Your task to perform on an android device: open app "WhatsApp Messenger" (install if not already installed) Image 0: 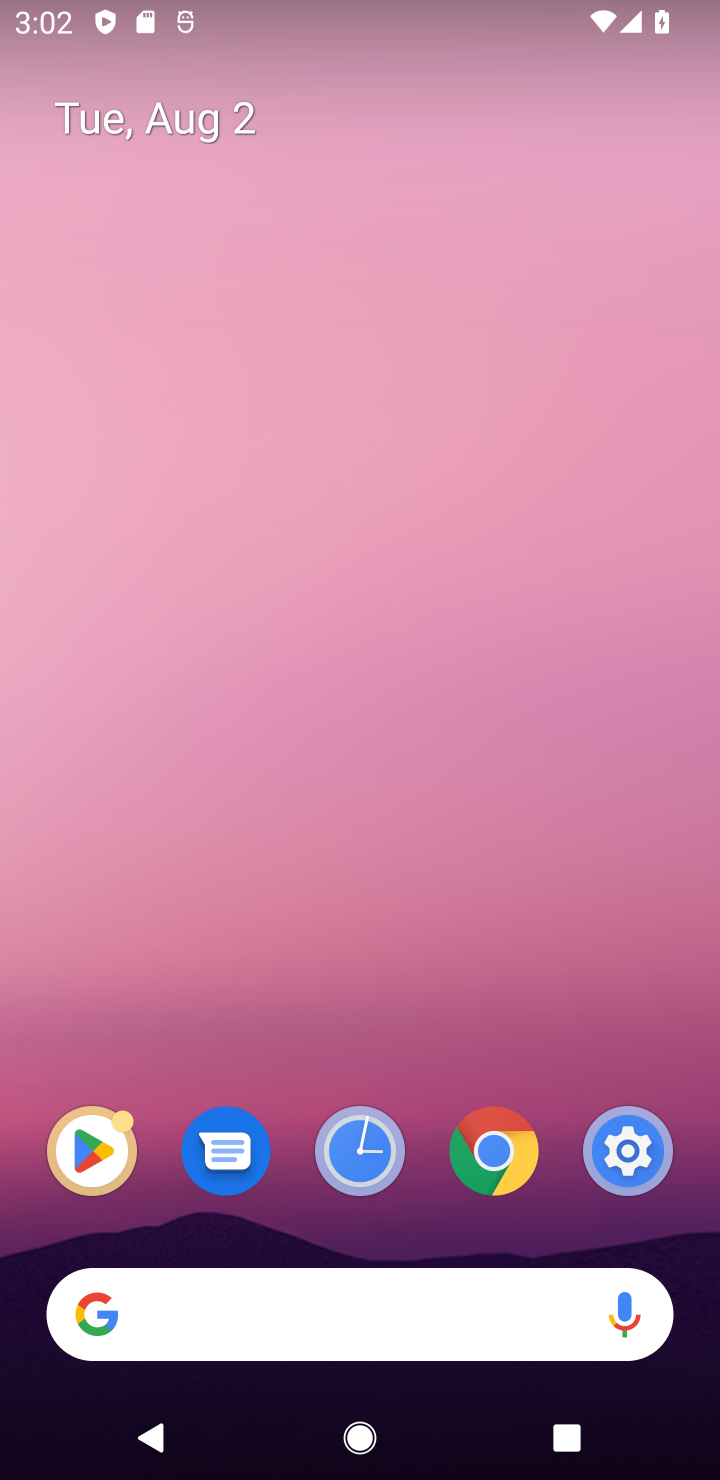
Step 0: click (66, 1134)
Your task to perform on an android device: open app "WhatsApp Messenger" (install if not already installed) Image 1: 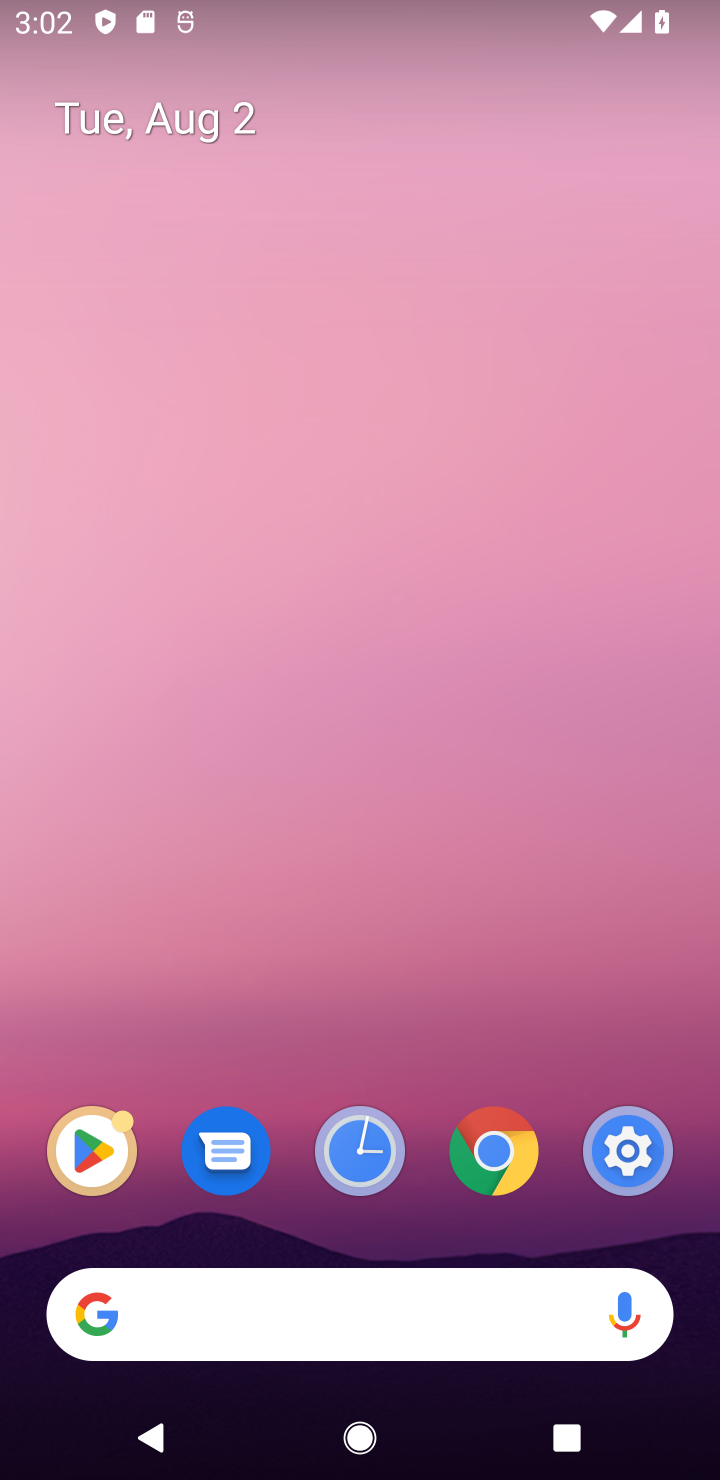
Step 1: click (66, 1134)
Your task to perform on an android device: open app "WhatsApp Messenger" (install if not already installed) Image 2: 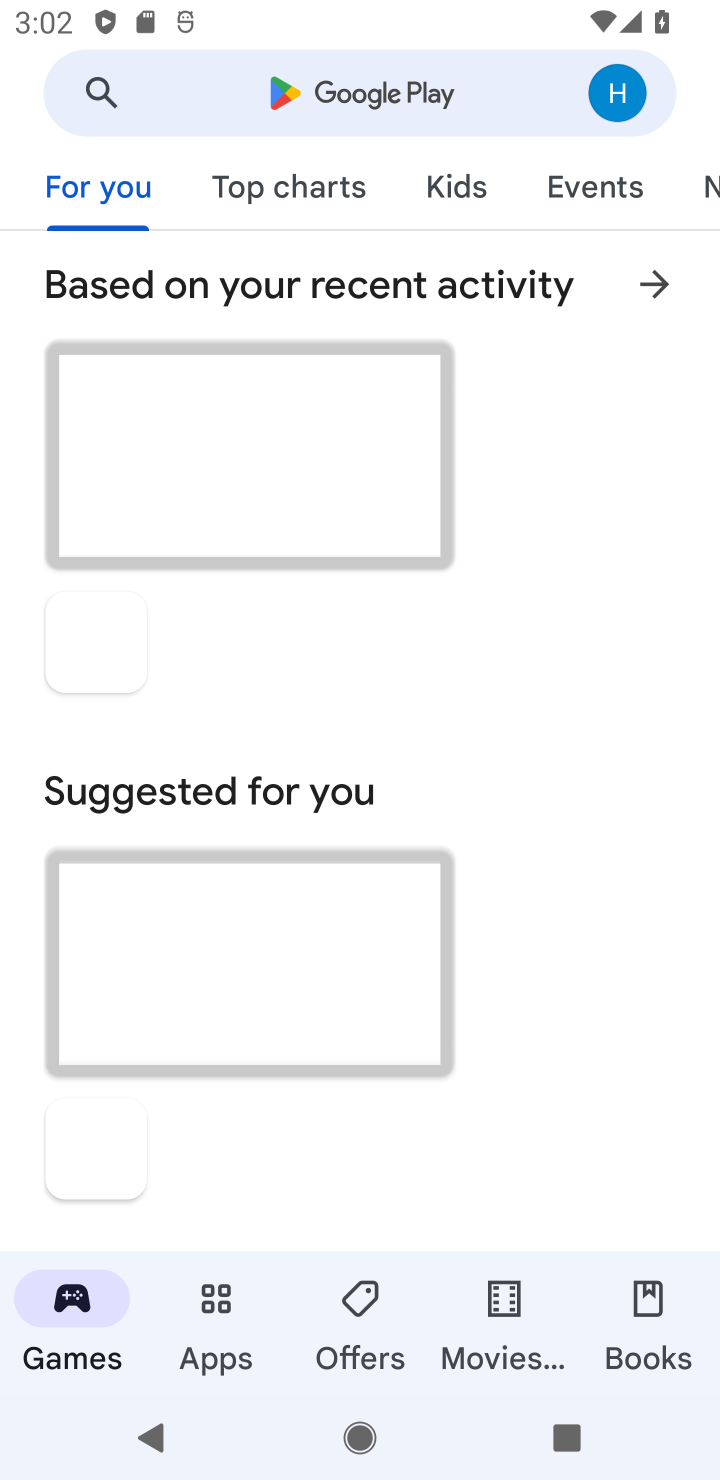
Step 2: click (572, 177)
Your task to perform on an android device: open app "WhatsApp Messenger" (install if not already installed) Image 3: 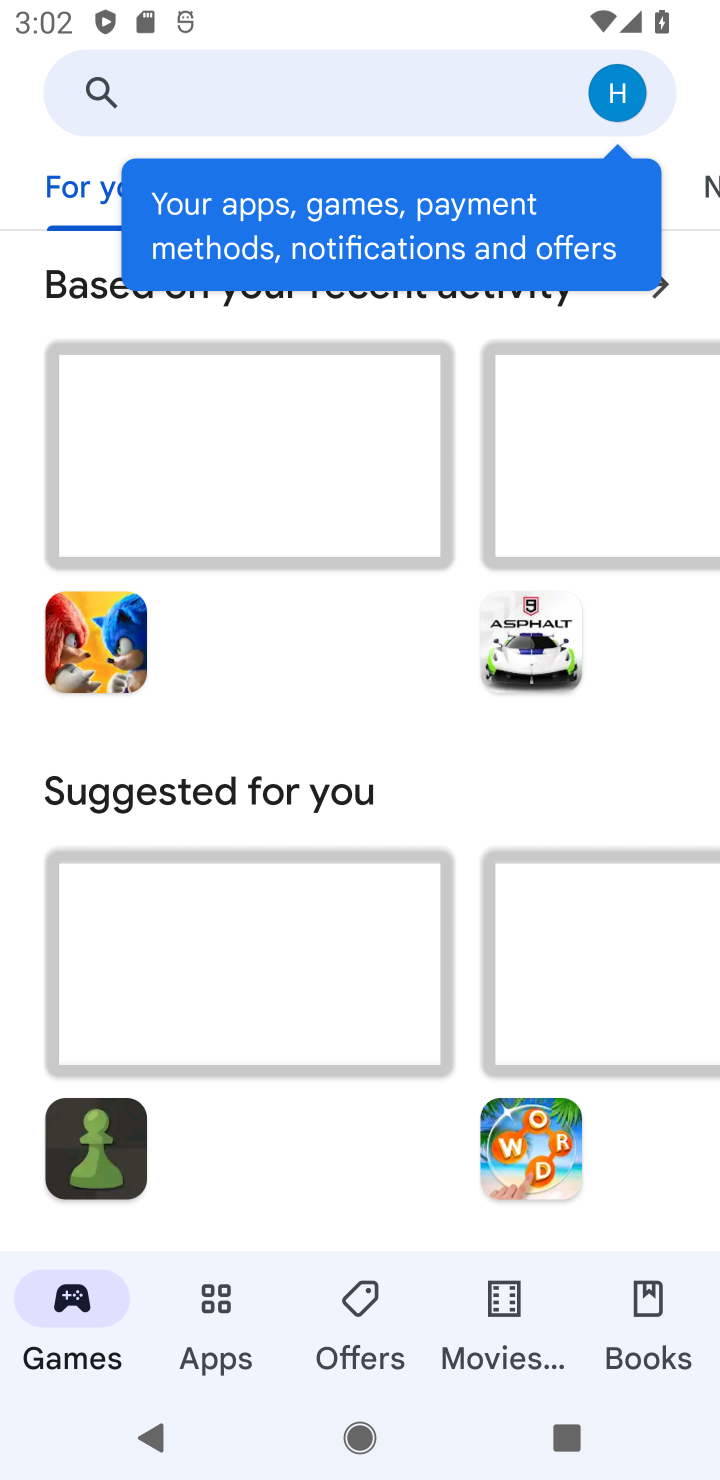
Step 3: click (404, 65)
Your task to perform on an android device: open app "WhatsApp Messenger" (install if not already installed) Image 4: 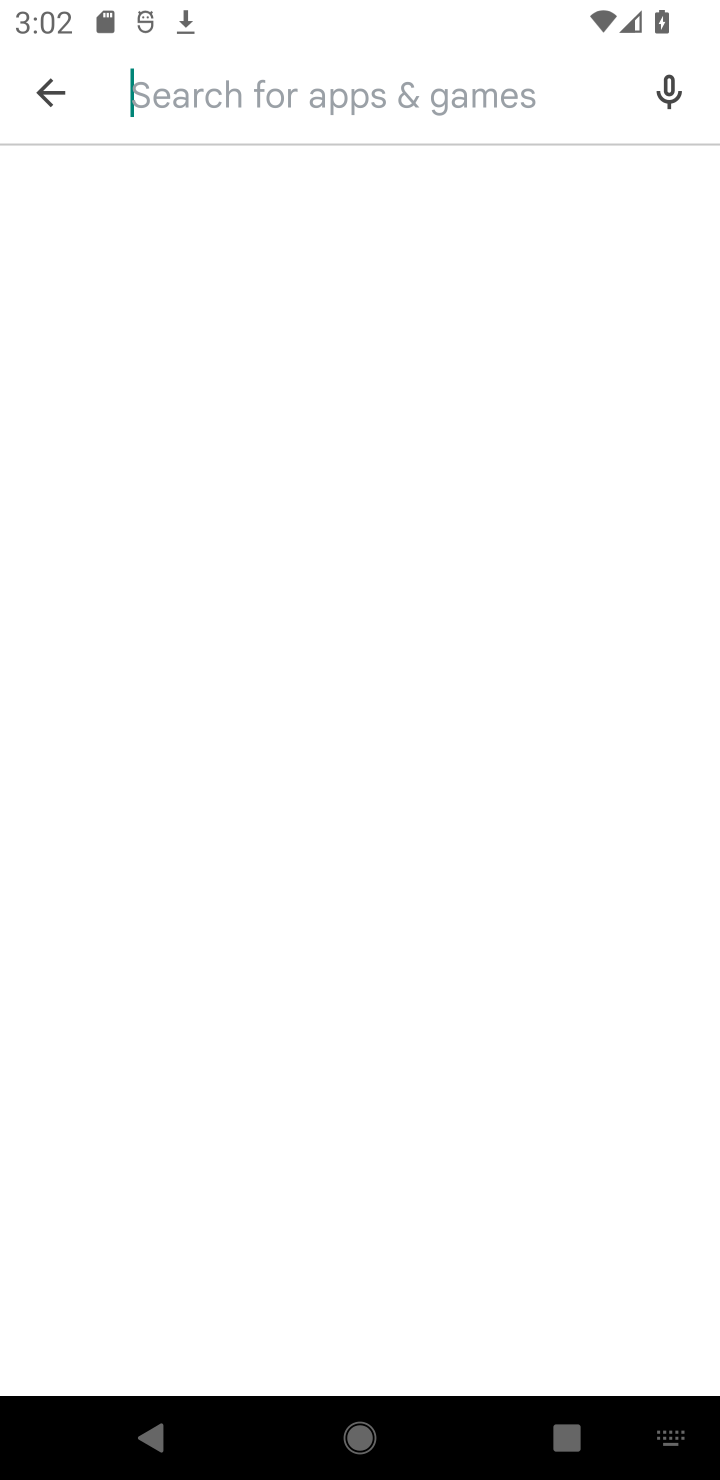
Step 4: type "whatsapp messenger"
Your task to perform on an android device: open app "WhatsApp Messenger" (install if not already installed) Image 5: 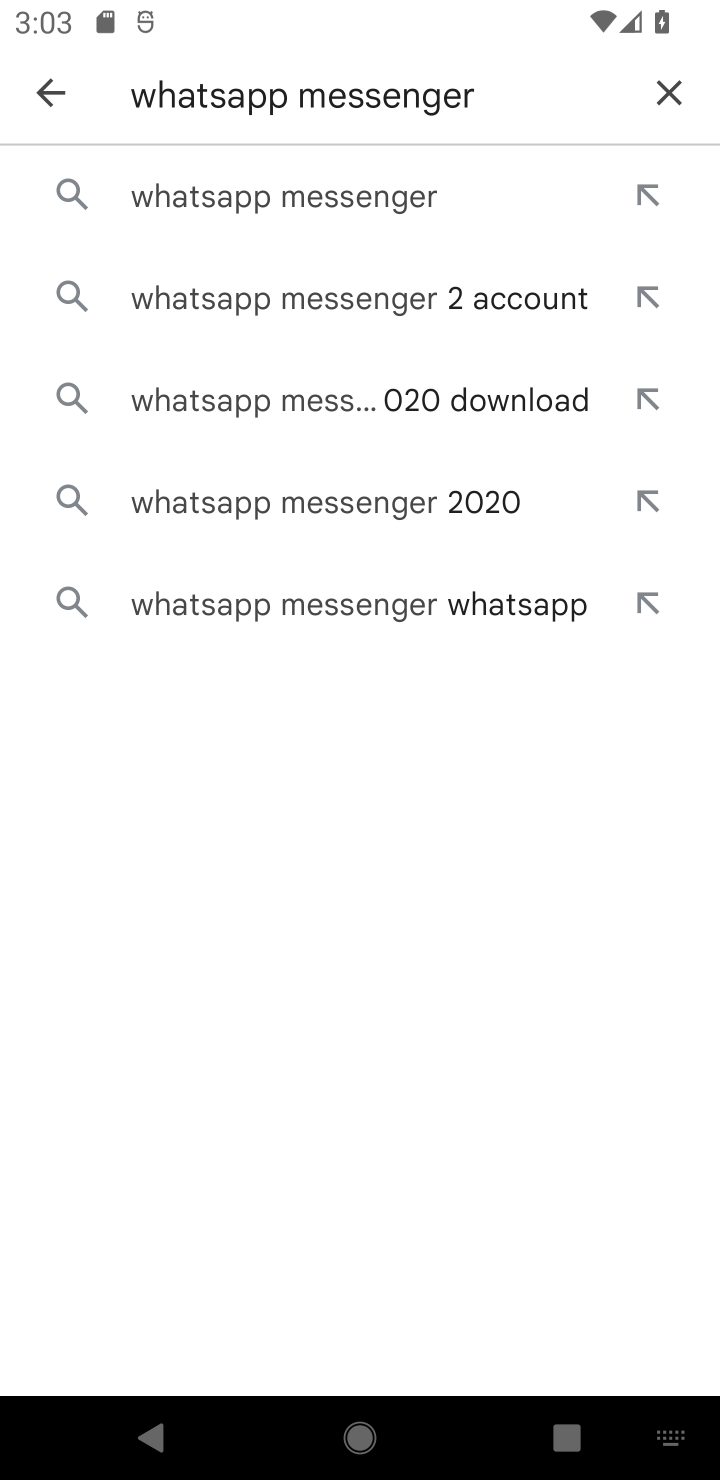
Step 5: click (588, 187)
Your task to perform on an android device: open app "WhatsApp Messenger" (install if not already installed) Image 6: 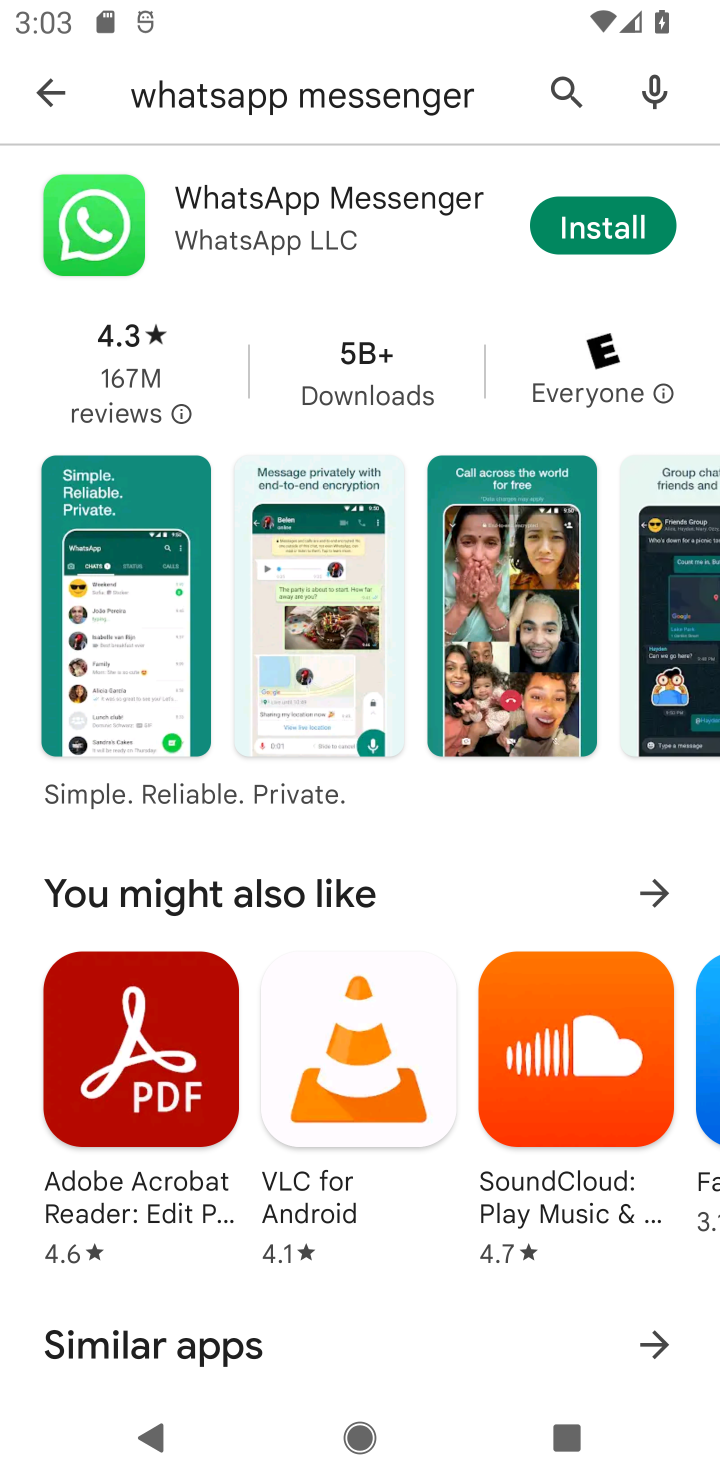
Step 6: click (418, 193)
Your task to perform on an android device: open app "WhatsApp Messenger" (install if not already installed) Image 7: 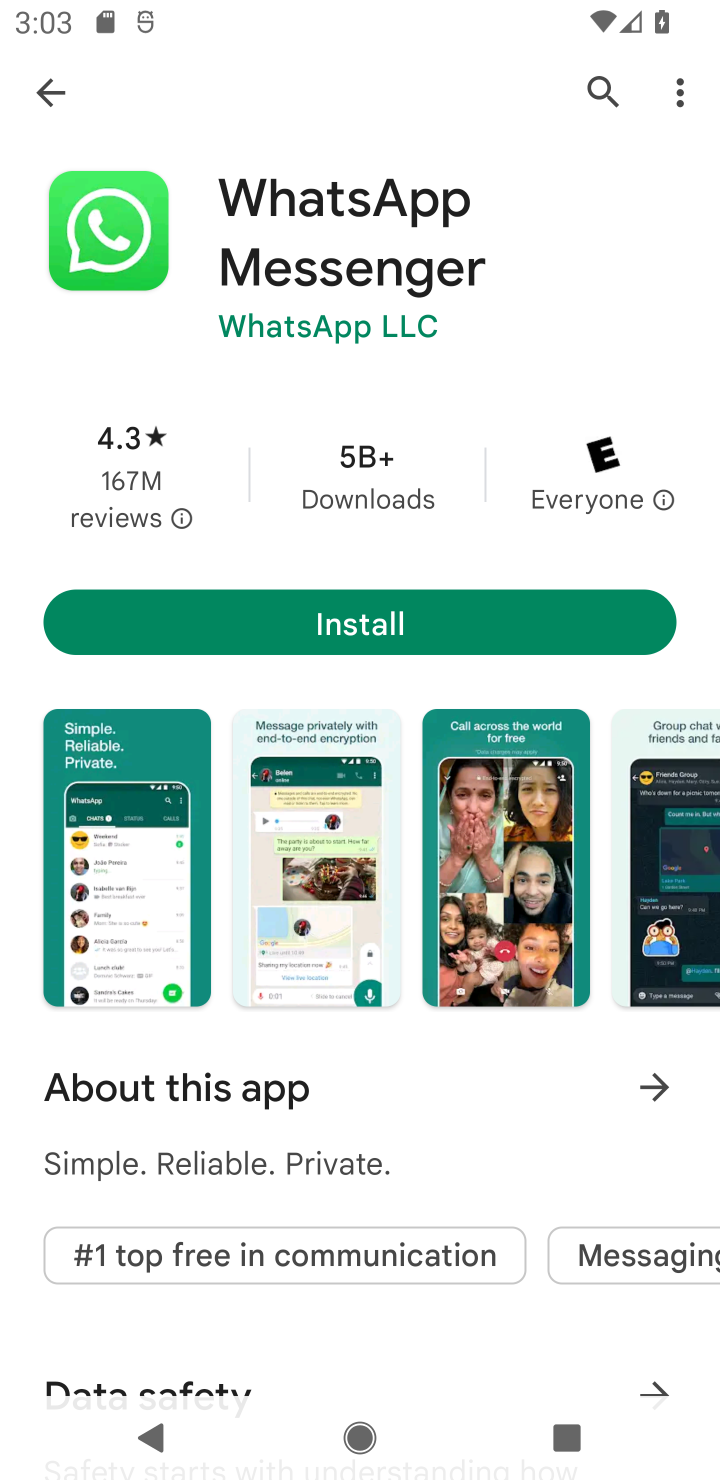
Step 7: click (389, 623)
Your task to perform on an android device: open app "WhatsApp Messenger" (install if not already installed) Image 8: 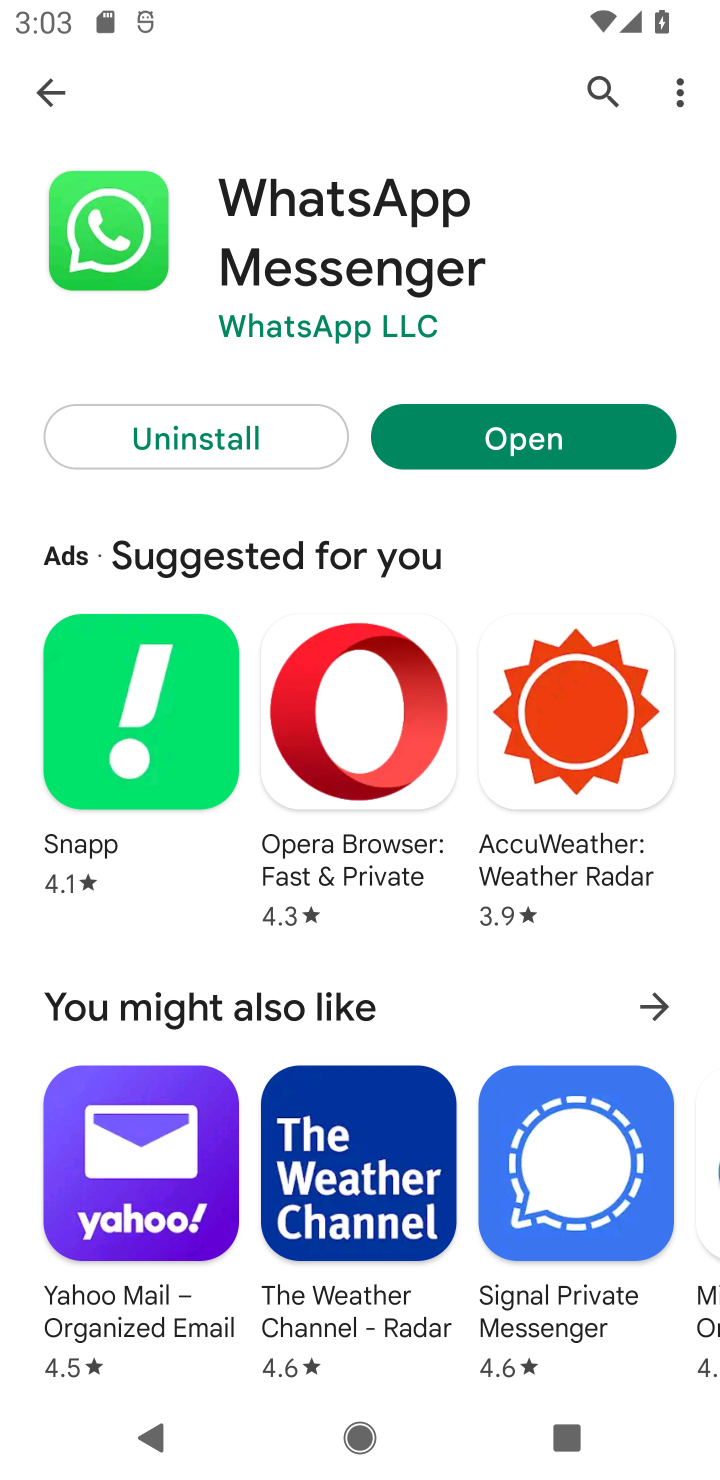
Step 8: click (565, 423)
Your task to perform on an android device: open app "WhatsApp Messenger" (install if not already installed) Image 9: 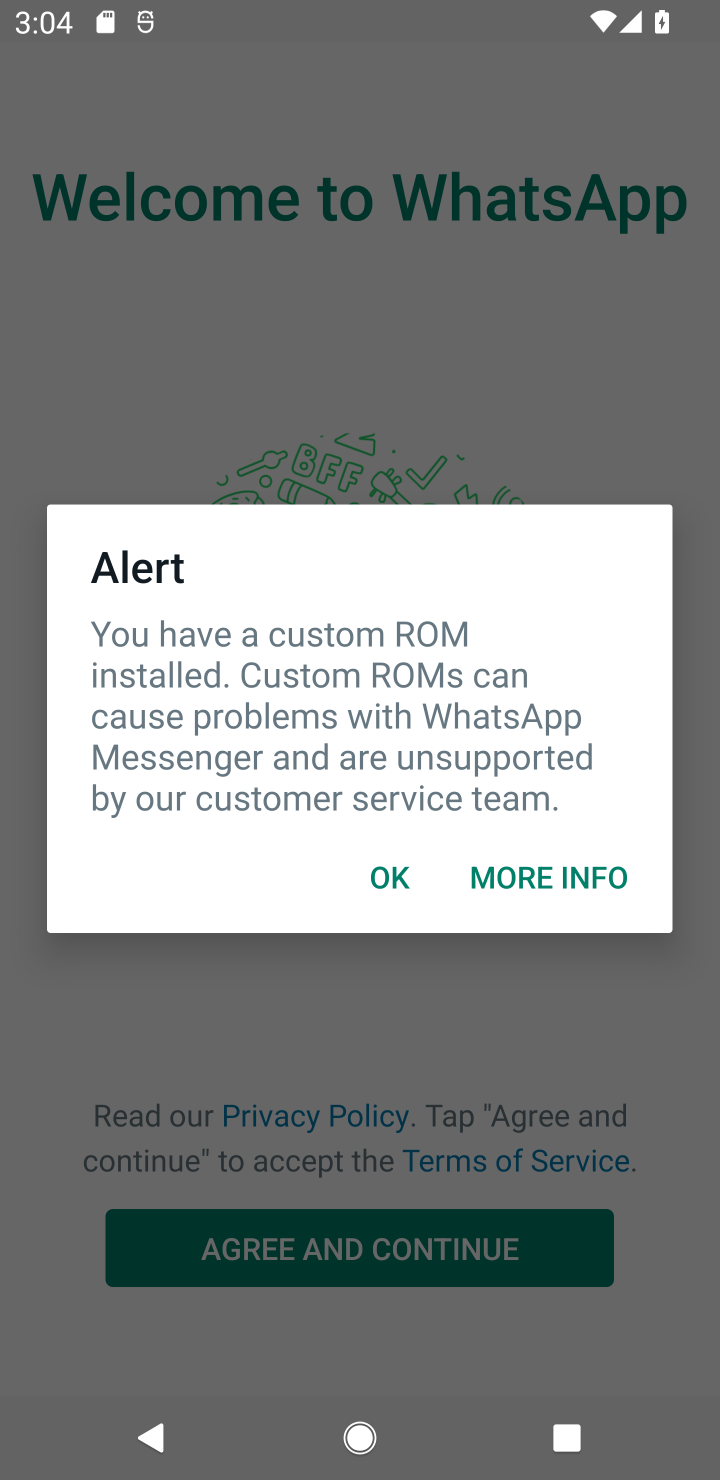
Step 9: task complete